Your task to perform on an android device: toggle priority inbox in the gmail app Image 0: 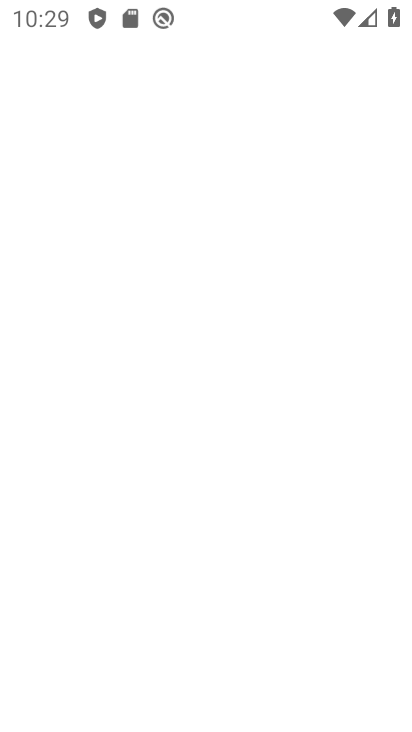
Step 0: drag from (271, 679) to (326, 178)
Your task to perform on an android device: toggle priority inbox in the gmail app Image 1: 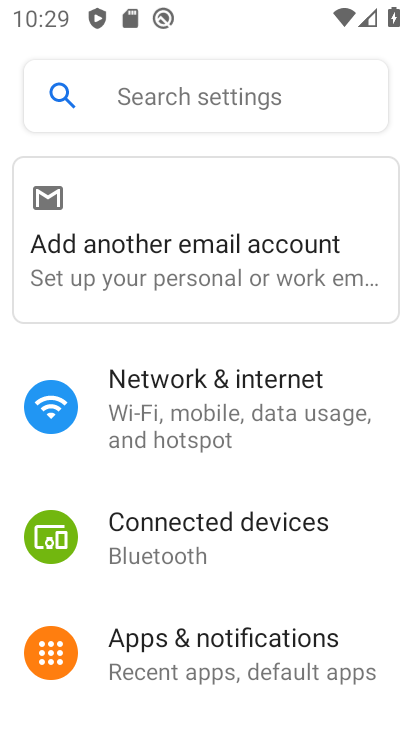
Step 1: press home button
Your task to perform on an android device: toggle priority inbox in the gmail app Image 2: 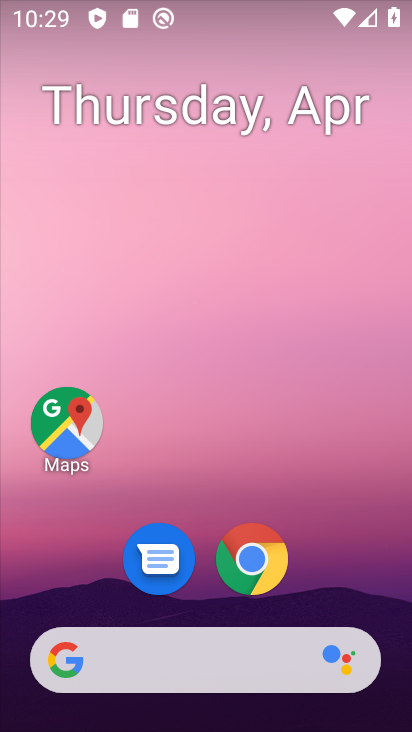
Step 2: drag from (307, 654) to (301, 183)
Your task to perform on an android device: toggle priority inbox in the gmail app Image 3: 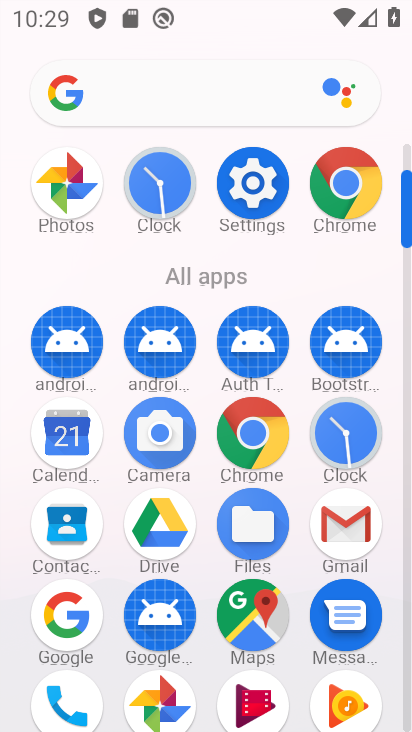
Step 3: click (345, 525)
Your task to perform on an android device: toggle priority inbox in the gmail app Image 4: 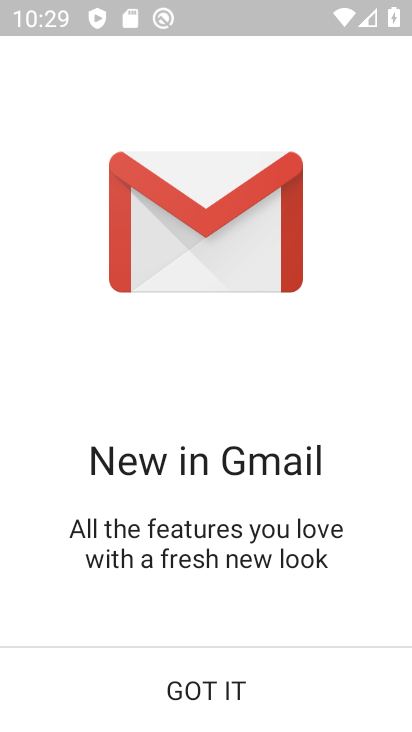
Step 4: click (226, 713)
Your task to perform on an android device: toggle priority inbox in the gmail app Image 5: 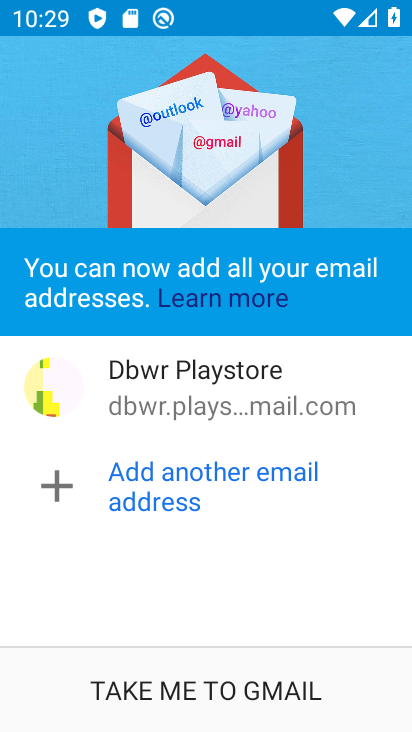
Step 5: click (187, 713)
Your task to perform on an android device: toggle priority inbox in the gmail app Image 6: 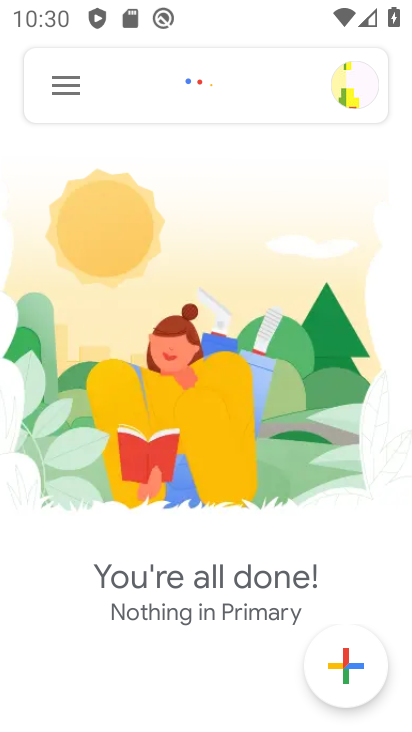
Step 6: click (85, 92)
Your task to perform on an android device: toggle priority inbox in the gmail app Image 7: 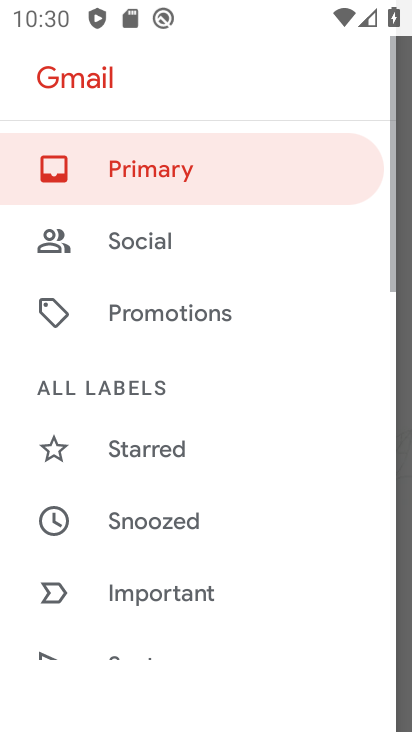
Step 7: drag from (175, 578) to (324, 118)
Your task to perform on an android device: toggle priority inbox in the gmail app Image 8: 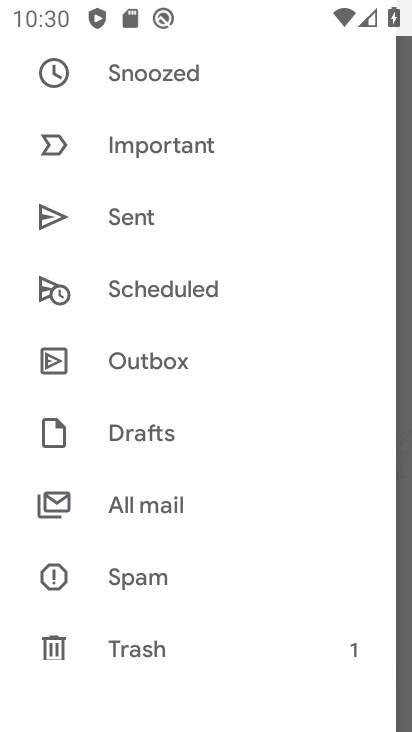
Step 8: drag from (185, 525) to (216, 119)
Your task to perform on an android device: toggle priority inbox in the gmail app Image 9: 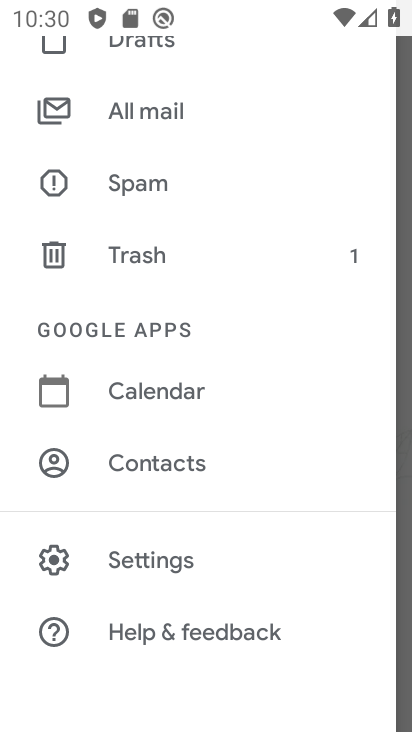
Step 9: click (143, 556)
Your task to perform on an android device: toggle priority inbox in the gmail app Image 10: 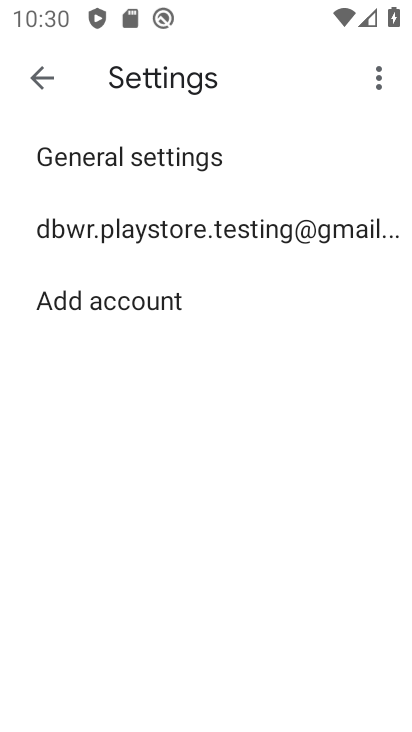
Step 10: click (118, 234)
Your task to perform on an android device: toggle priority inbox in the gmail app Image 11: 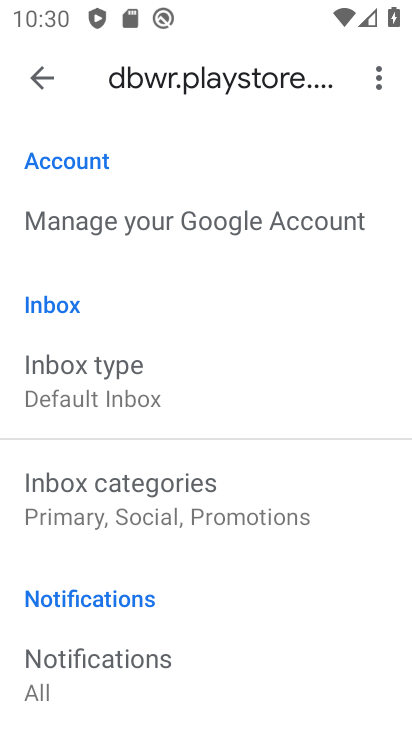
Step 11: click (94, 390)
Your task to perform on an android device: toggle priority inbox in the gmail app Image 12: 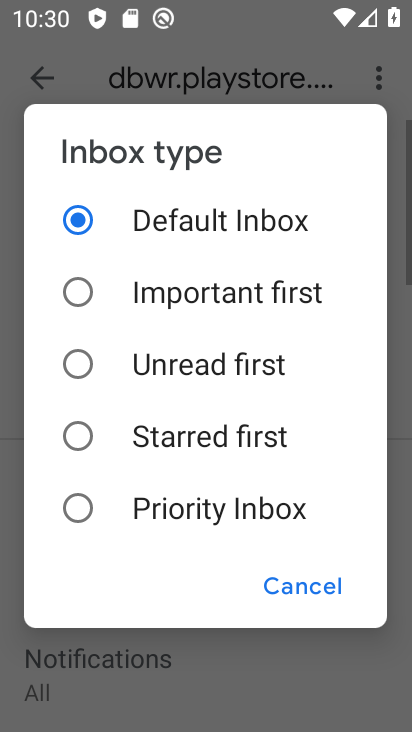
Step 12: click (142, 503)
Your task to perform on an android device: toggle priority inbox in the gmail app Image 13: 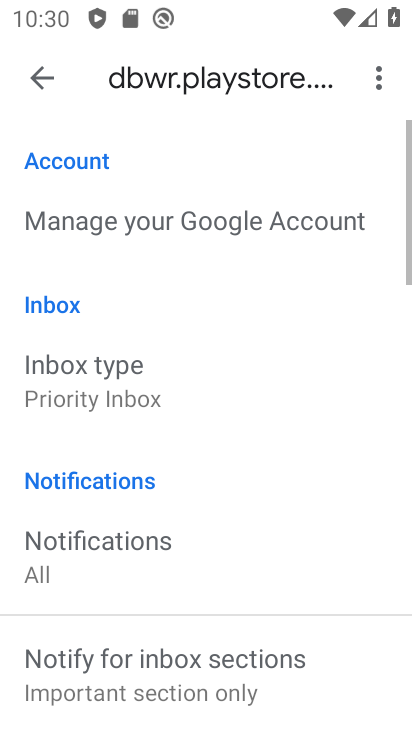
Step 13: task complete